Your task to perform on an android device: Turn off the flashlight Image 0: 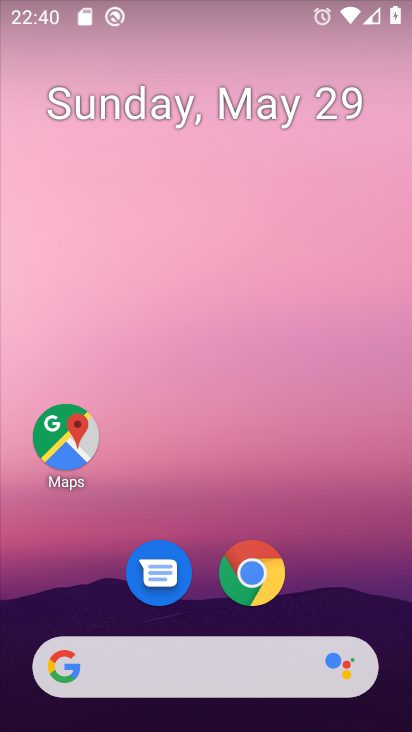
Step 0: drag from (241, 496) to (244, 3)
Your task to perform on an android device: Turn off the flashlight Image 1: 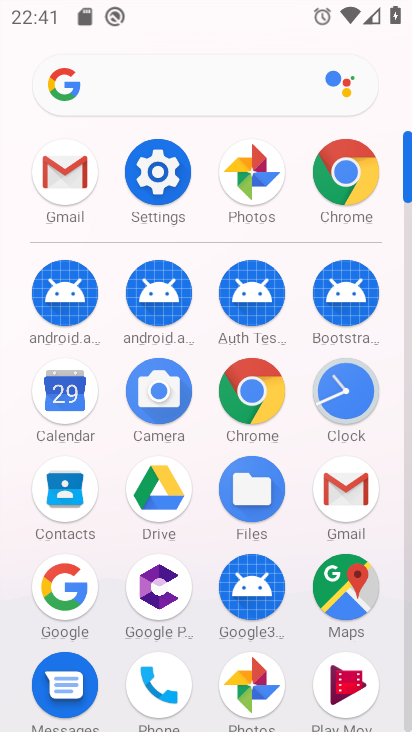
Step 1: click (160, 167)
Your task to perform on an android device: Turn off the flashlight Image 2: 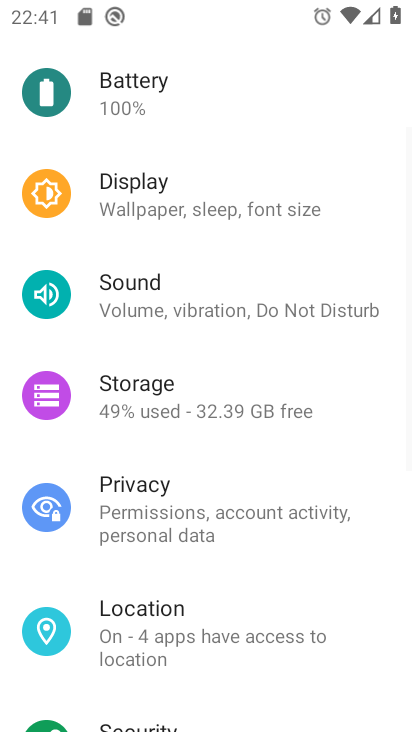
Step 2: drag from (254, 152) to (191, 728)
Your task to perform on an android device: Turn off the flashlight Image 3: 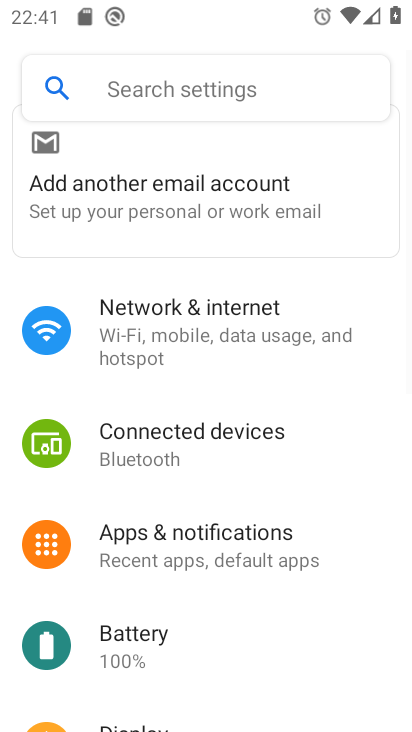
Step 3: drag from (232, 263) to (226, 665)
Your task to perform on an android device: Turn off the flashlight Image 4: 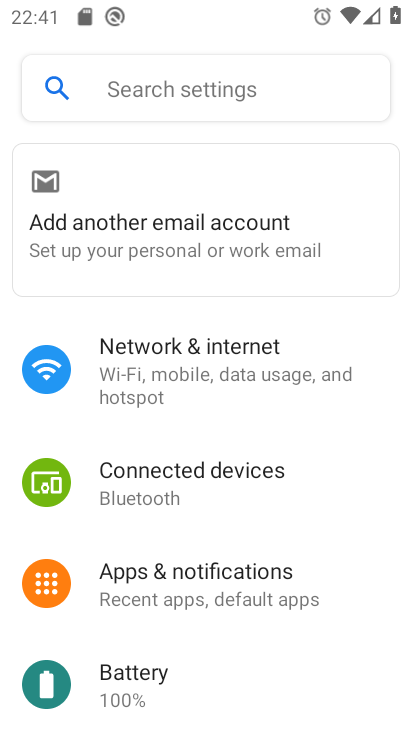
Step 4: click (290, 88)
Your task to perform on an android device: Turn off the flashlight Image 5: 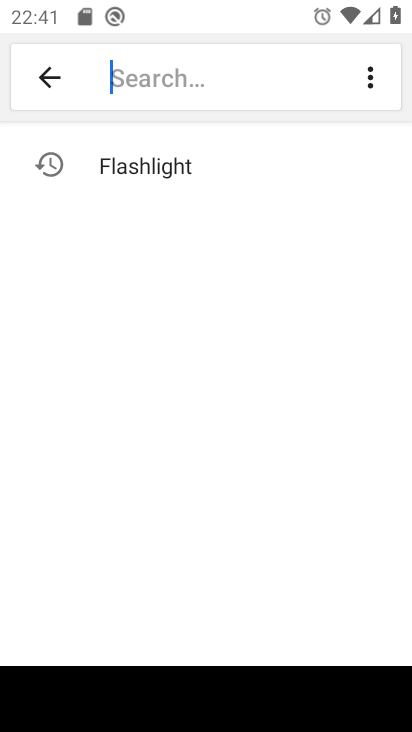
Step 5: click (138, 173)
Your task to perform on an android device: Turn off the flashlight Image 6: 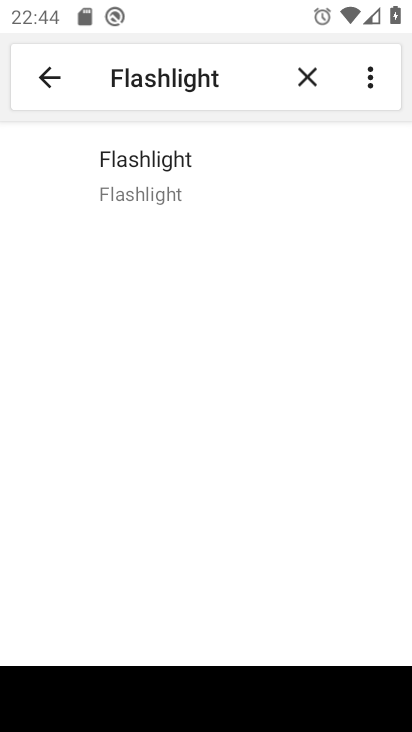
Step 6: task complete